Your task to perform on an android device: check the backup settings in the google photos Image 0: 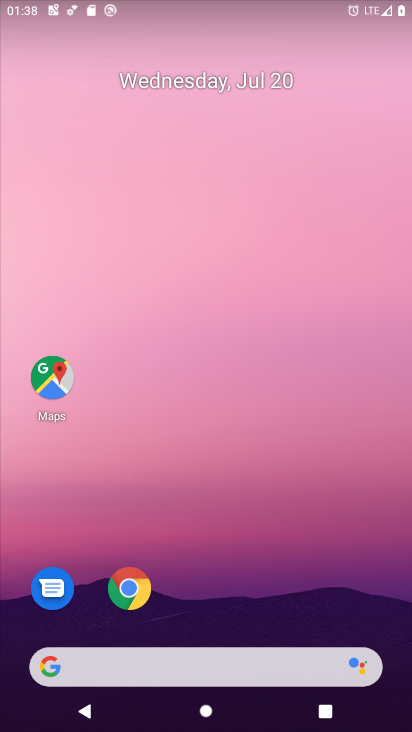
Step 0: drag from (163, 543) to (242, 199)
Your task to perform on an android device: check the backup settings in the google photos Image 1: 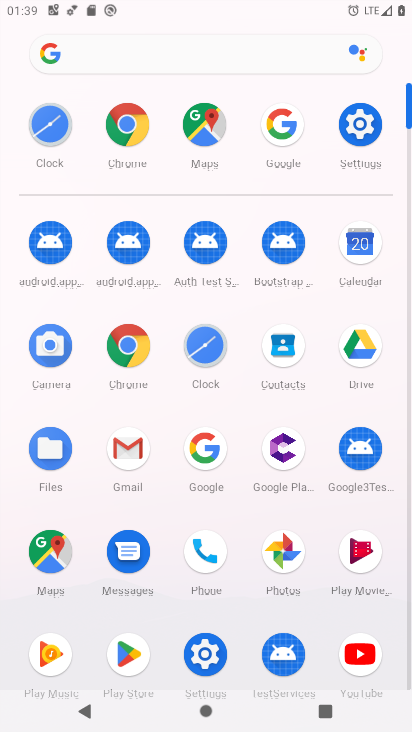
Step 1: click (282, 560)
Your task to perform on an android device: check the backup settings in the google photos Image 2: 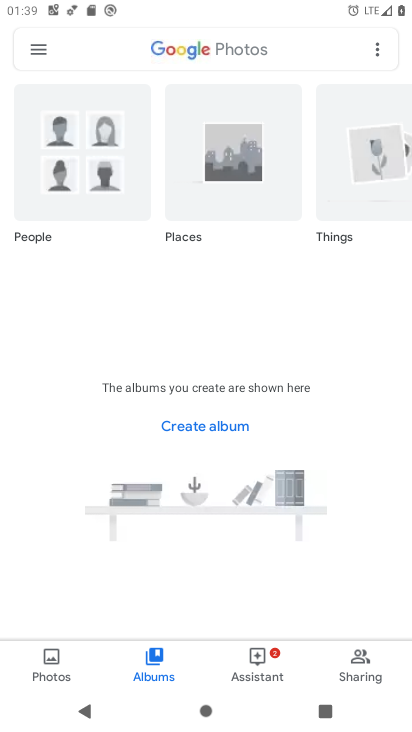
Step 2: click (38, 43)
Your task to perform on an android device: check the backup settings in the google photos Image 3: 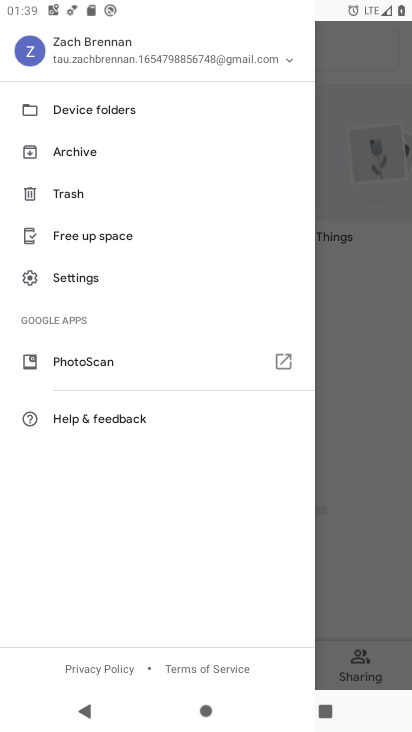
Step 3: click (83, 284)
Your task to perform on an android device: check the backup settings in the google photos Image 4: 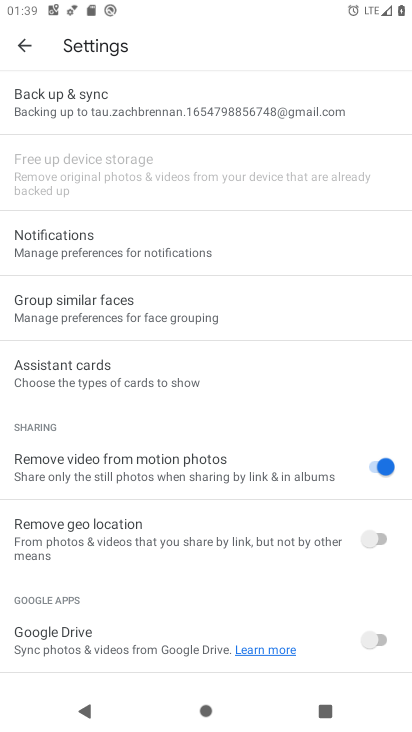
Step 4: click (86, 101)
Your task to perform on an android device: check the backup settings in the google photos Image 5: 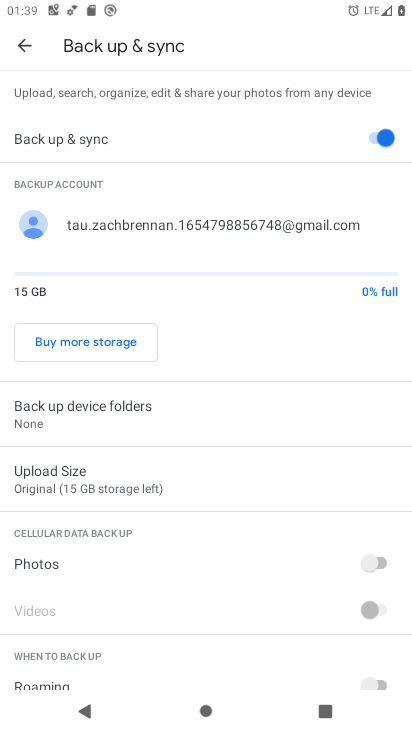
Step 5: task complete